Your task to perform on an android device: turn pop-ups off in chrome Image 0: 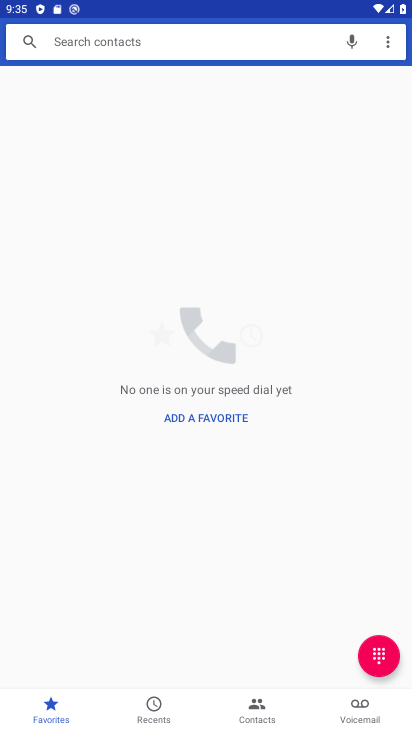
Step 0: press home button
Your task to perform on an android device: turn pop-ups off in chrome Image 1: 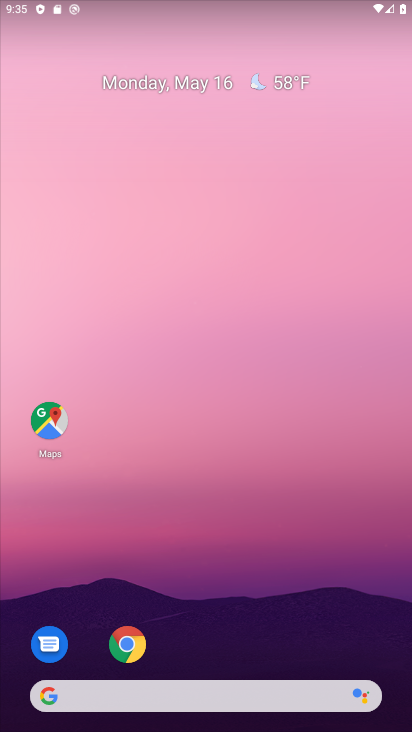
Step 1: click (124, 635)
Your task to perform on an android device: turn pop-ups off in chrome Image 2: 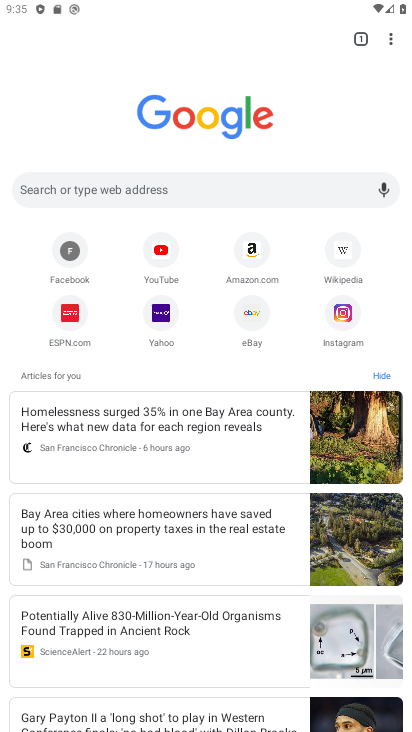
Step 2: drag from (392, 44) to (285, 330)
Your task to perform on an android device: turn pop-ups off in chrome Image 3: 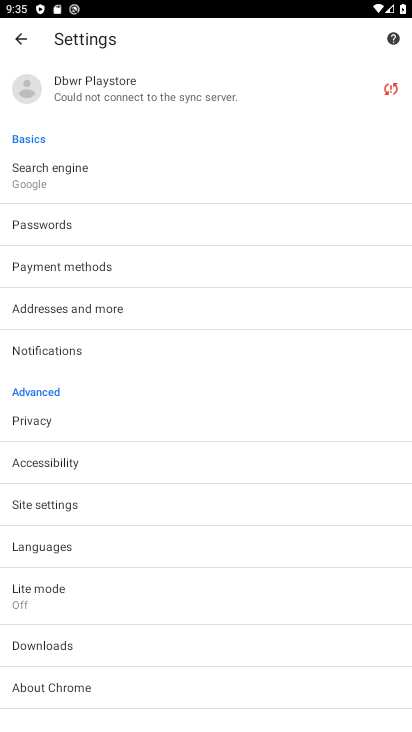
Step 3: click (81, 497)
Your task to perform on an android device: turn pop-ups off in chrome Image 4: 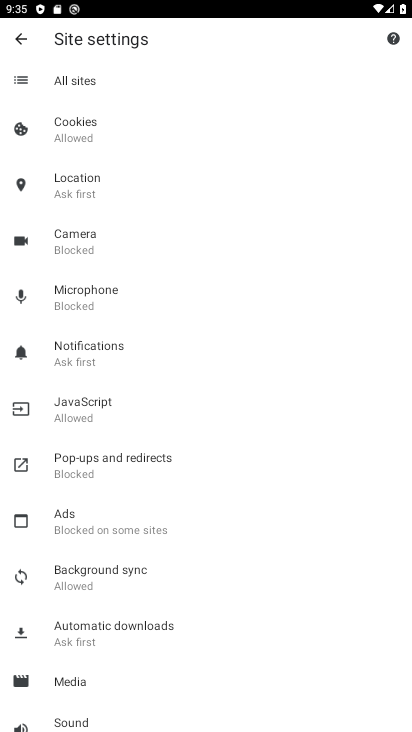
Step 4: click (111, 458)
Your task to perform on an android device: turn pop-ups off in chrome Image 5: 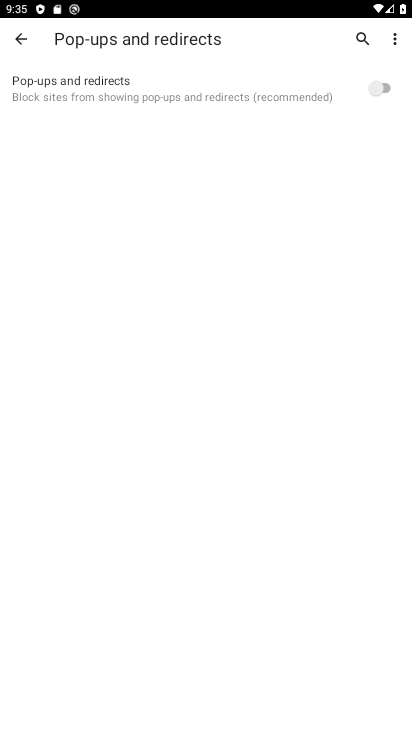
Step 5: task complete